Your task to perform on an android device: delete a single message in the gmail app Image 0: 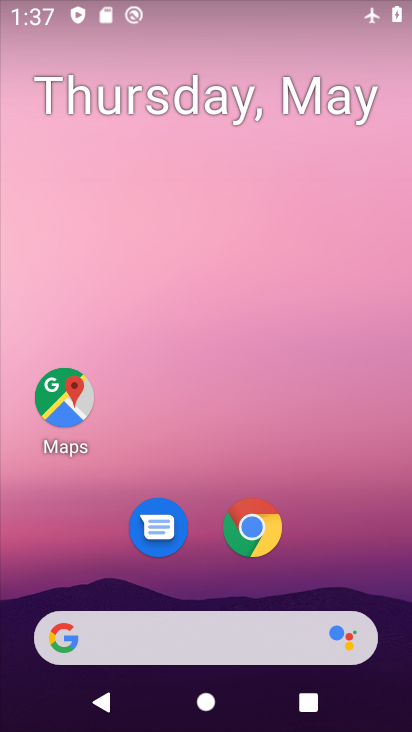
Step 0: drag from (319, 405) to (293, 68)
Your task to perform on an android device: delete a single message in the gmail app Image 1: 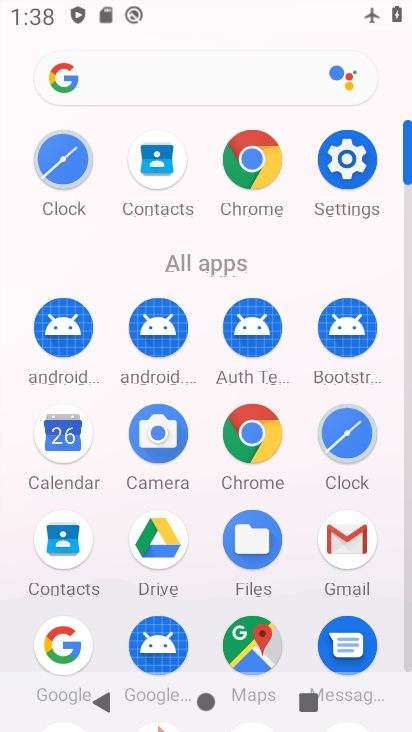
Step 1: click (347, 541)
Your task to perform on an android device: delete a single message in the gmail app Image 2: 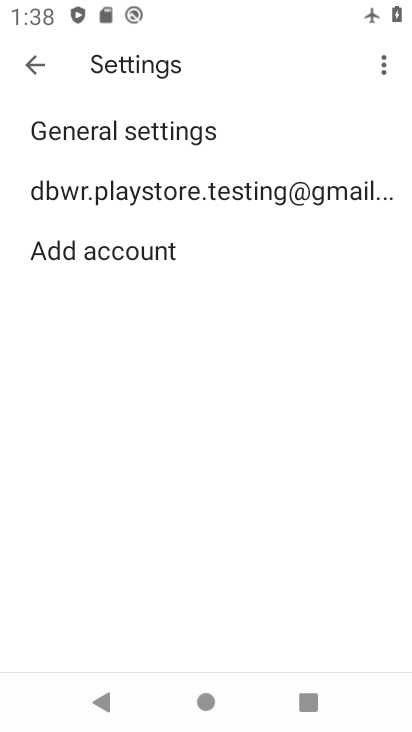
Step 2: click (40, 47)
Your task to perform on an android device: delete a single message in the gmail app Image 3: 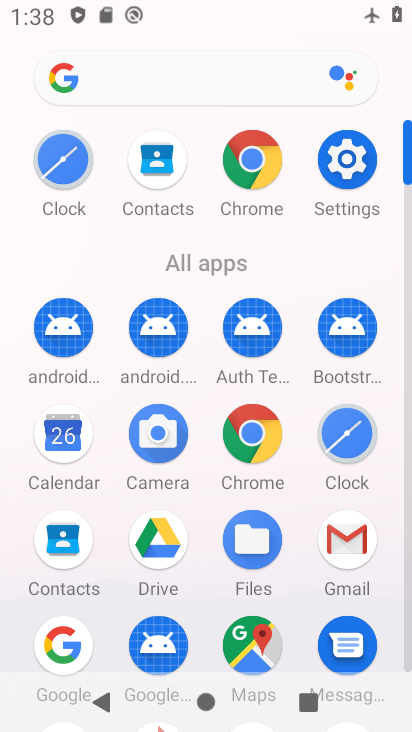
Step 3: click (373, 536)
Your task to perform on an android device: delete a single message in the gmail app Image 4: 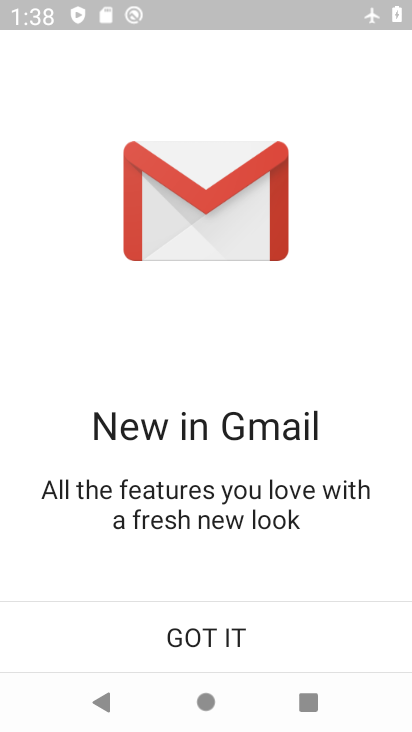
Step 4: click (237, 634)
Your task to perform on an android device: delete a single message in the gmail app Image 5: 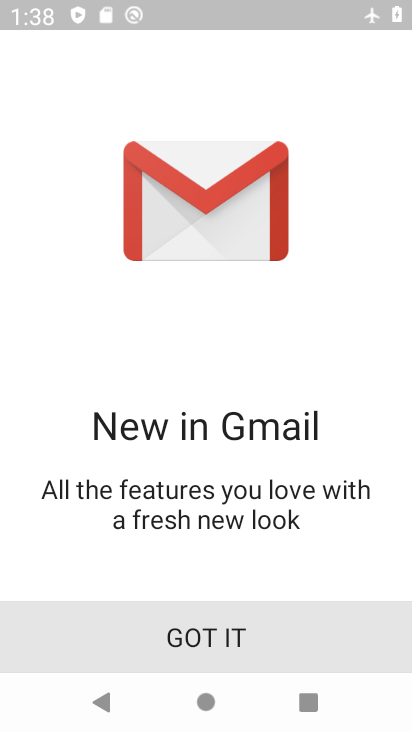
Step 5: click (237, 634)
Your task to perform on an android device: delete a single message in the gmail app Image 6: 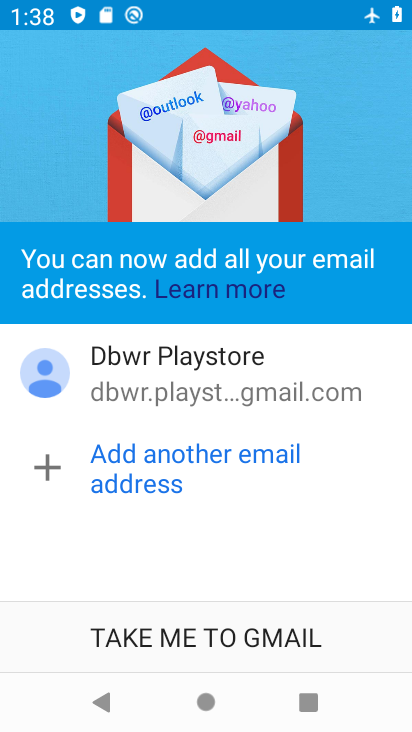
Step 6: click (237, 634)
Your task to perform on an android device: delete a single message in the gmail app Image 7: 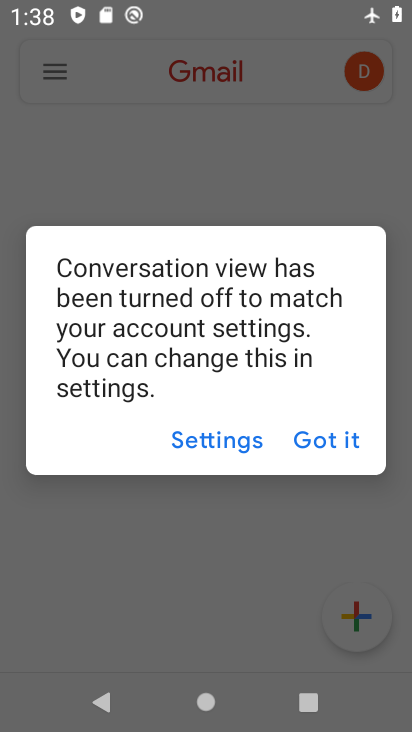
Step 7: click (351, 433)
Your task to perform on an android device: delete a single message in the gmail app Image 8: 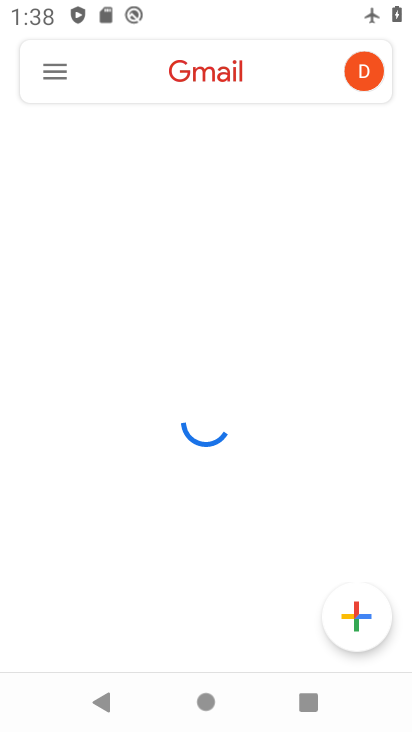
Step 8: click (58, 88)
Your task to perform on an android device: delete a single message in the gmail app Image 9: 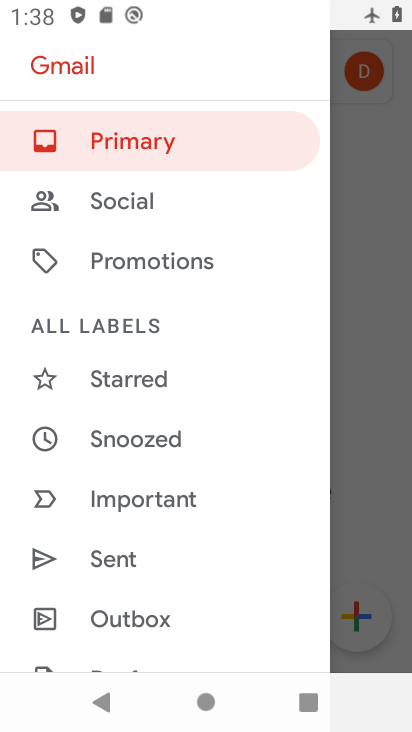
Step 9: task complete